Your task to perform on an android device: see sites visited before in the chrome app Image 0: 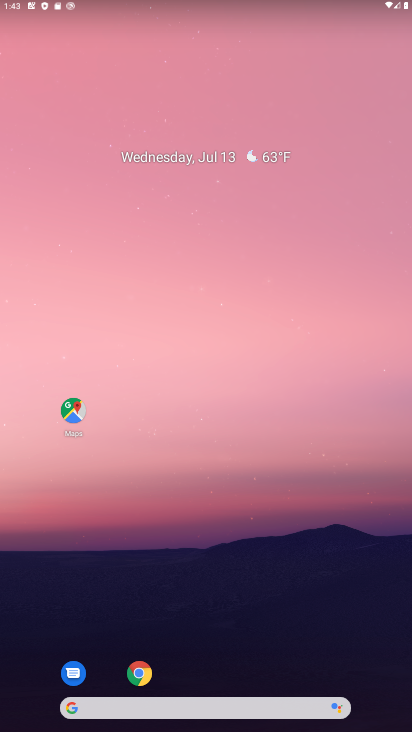
Step 0: drag from (296, 593) to (294, 202)
Your task to perform on an android device: see sites visited before in the chrome app Image 1: 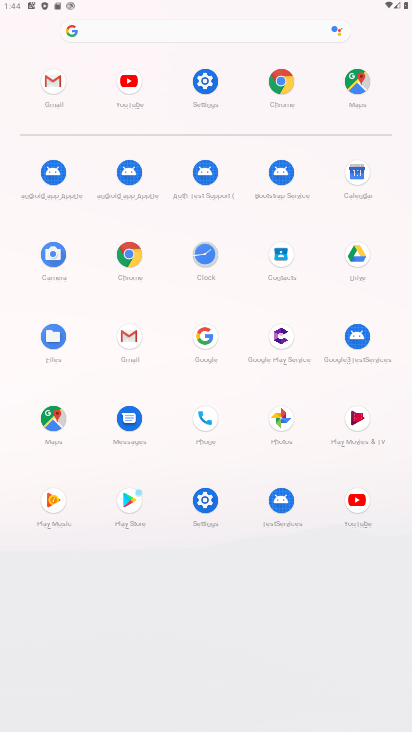
Step 1: click (284, 66)
Your task to perform on an android device: see sites visited before in the chrome app Image 2: 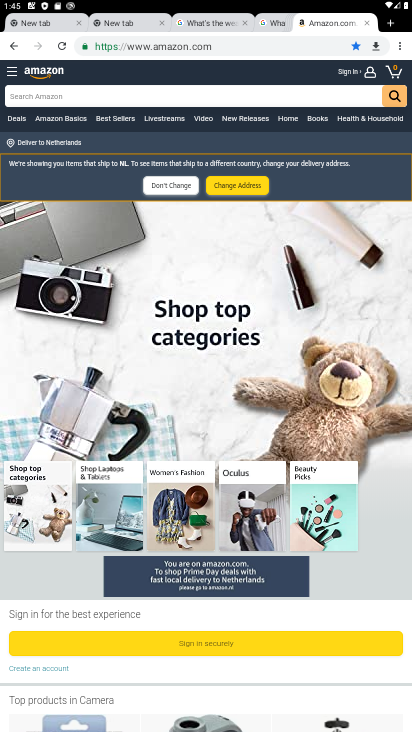
Step 2: click (403, 44)
Your task to perform on an android device: see sites visited before in the chrome app Image 3: 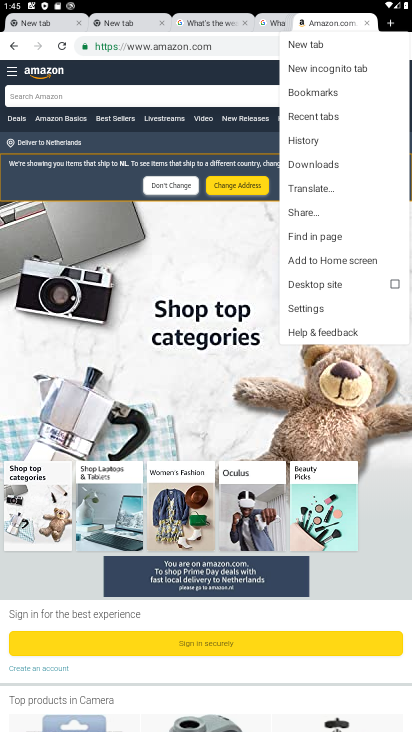
Step 3: click (325, 140)
Your task to perform on an android device: see sites visited before in the chrome app Image 4: 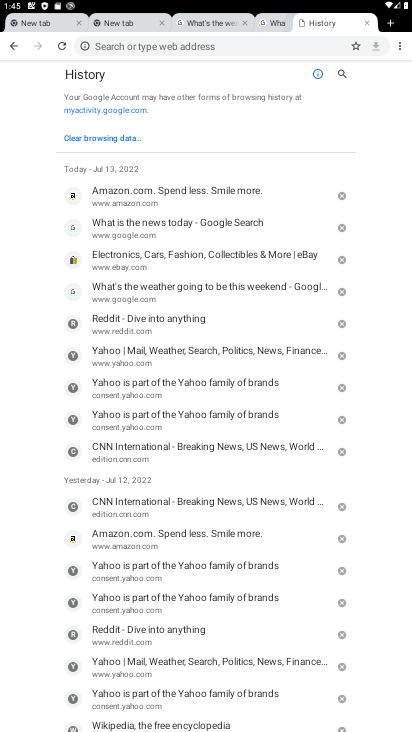
Step 4: task complete